Your task to perform on an android device: turn off translation in the chrome app Image 0: 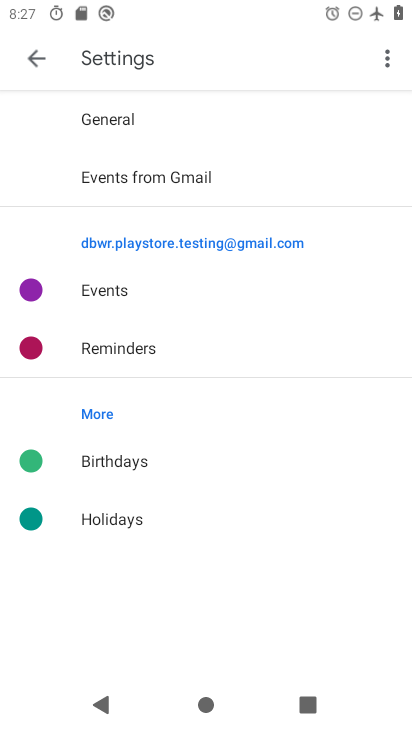
Step 0: press home button
Your task to perform on an android device: turn off translation in the chrome app Image 1: 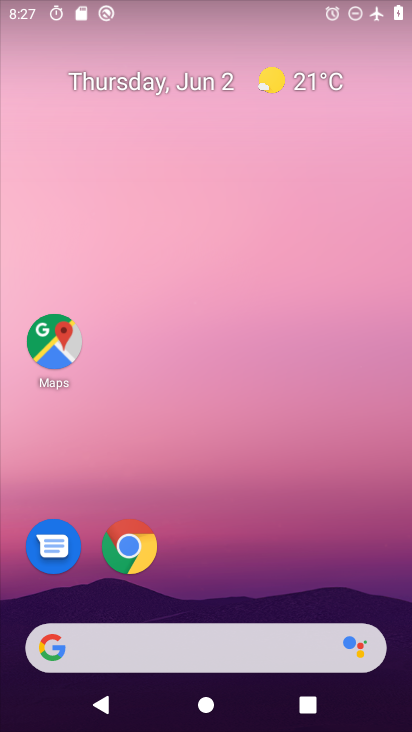
Step 1: drag from (322, 575) to (301, 207)
Your task to perform on an android device: turn off translation in the chrome app Image 2: 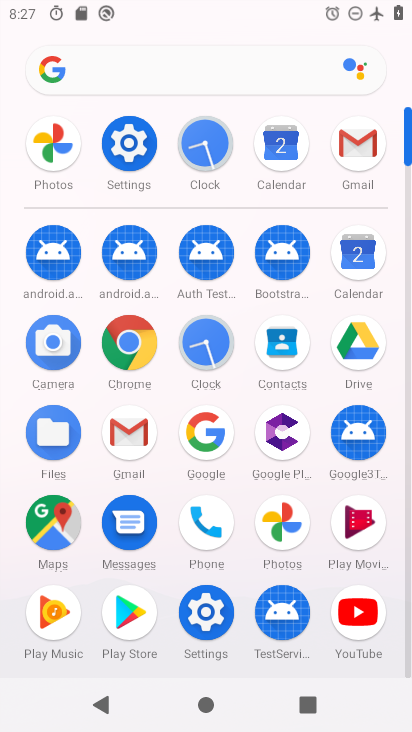
Step 2: click (108, 359)
Your task to perform on an android device: turn off translation in the chrome app Image 3: 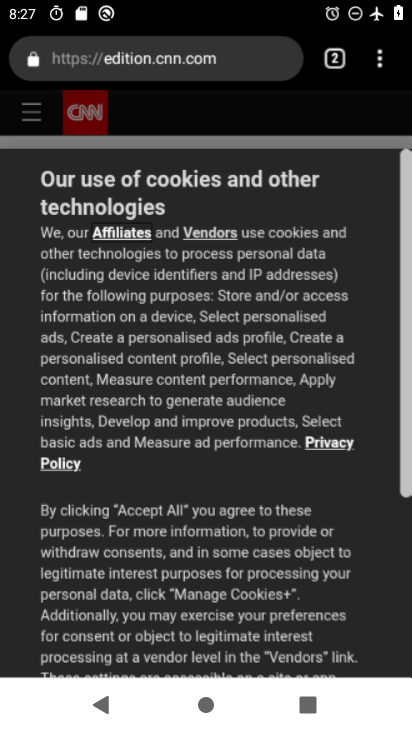
Step 3: drag from (367, 61) to (189, 566)
Your task to perform on an android device: turn off translation in the chrome app Image 4: 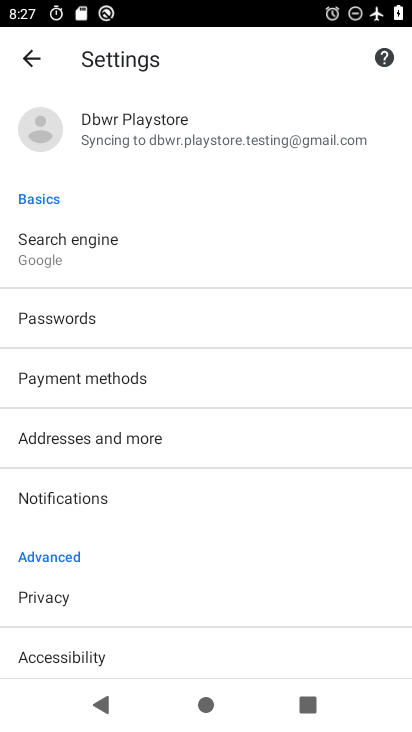
Step 4: drag from (186, 561) to (265, 212)
Your task to perform on an android device: turn off translation in the chrome app Image 5: 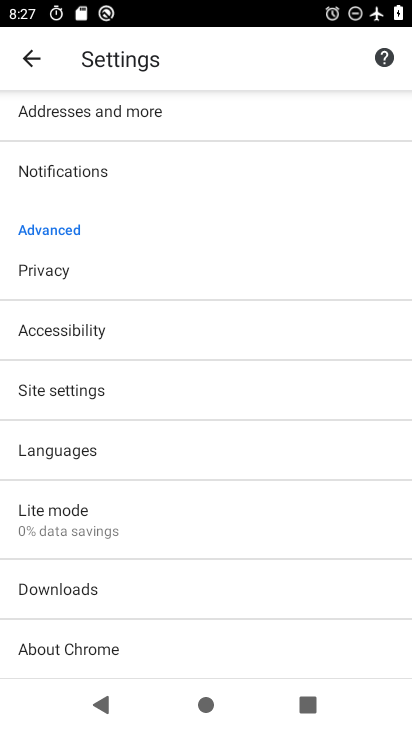
Step 5: click (149, 462)
Your task to perform on an android device: turn off translation in the chrome app Image 6: 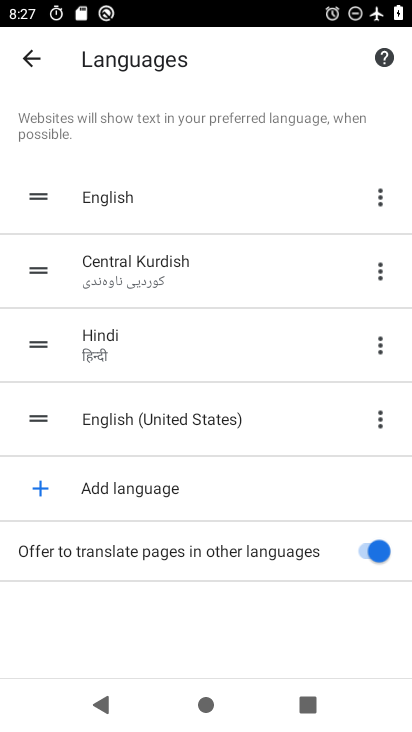
Step 6: click (374, 541)
Your task to perform on an android device: turn off translation in the chrome app Image 7: 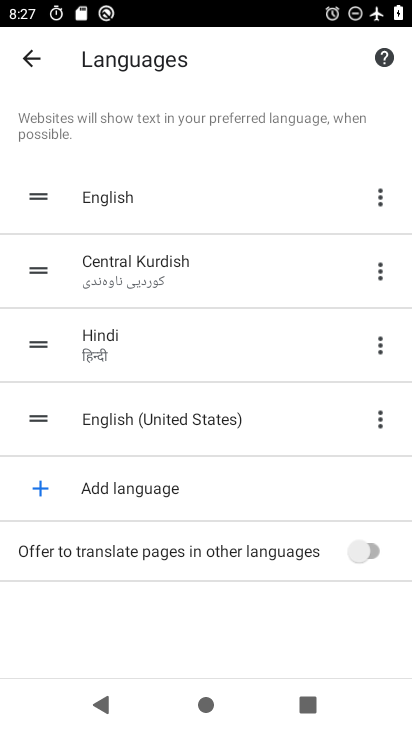
Step 7: task complete